Your task to perform on an android device: delete browsing data in the chrome app Image 0: 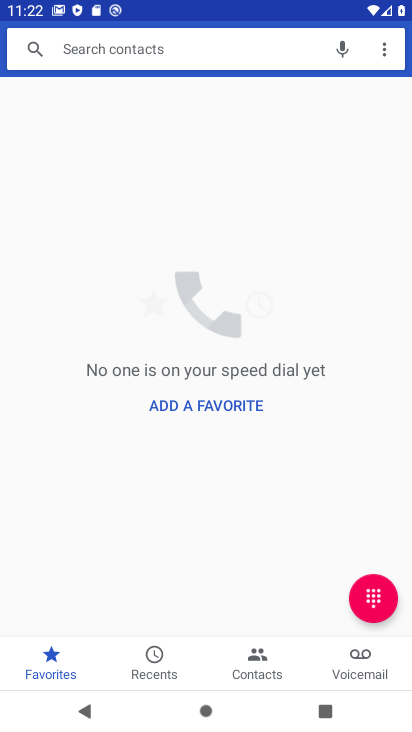
Step 0: press home button
Your task to perform on an android device: delete browsing data in the chrome app Image 1: 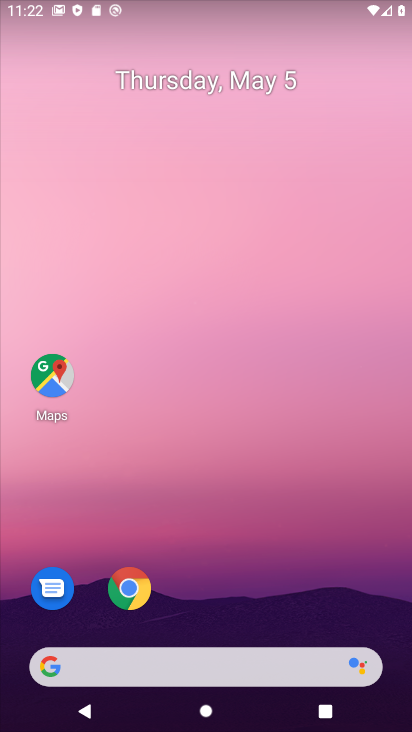
Step 1: drag from (163, 673) to (295, 83)
Your task to perform on an android device: delete browsing data in the chrome app Image 2: 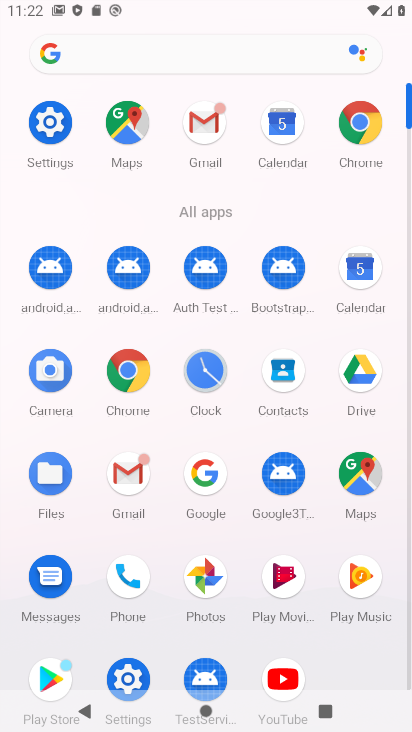
Step 2: click (354, 133)
Your task to perform on an android device: delete browsing data in the chrome app Image 3: 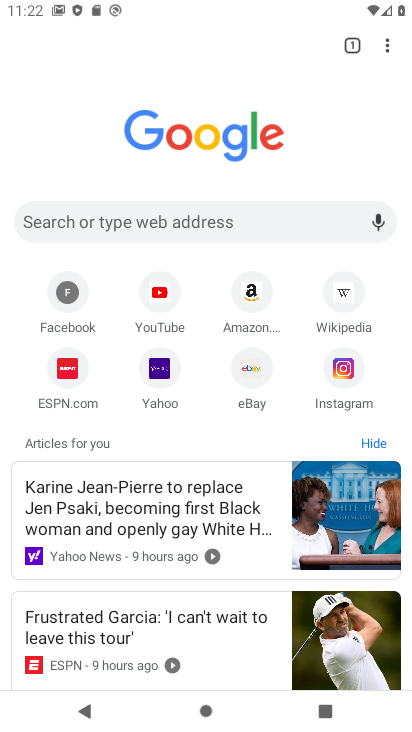
Step 3: drag from (386, 46) to (251, 382)
Your task to perform on an android device: delete browsing data in the chrome app Image 4: 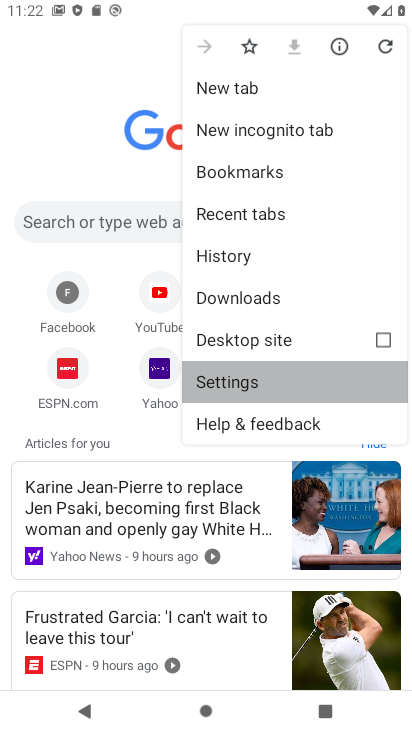
Step 4: click (251, 382)
Your task to perform on an android device: delete browsing data in the chrome app Image 5: 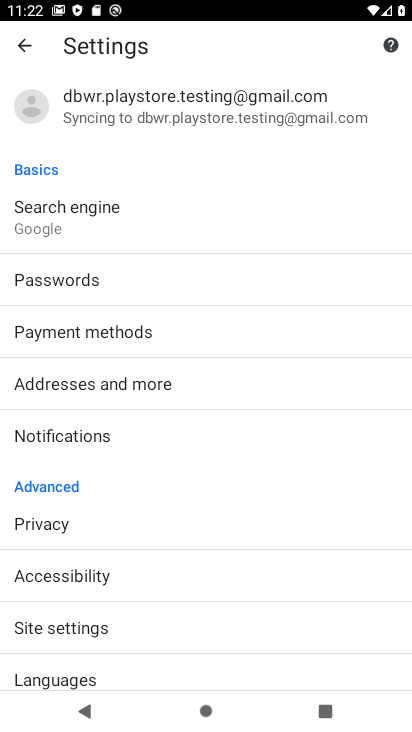
Step 5: click (28, 527)
Your task to perform on an android device: delete browsing data in the chrome app Image 6: 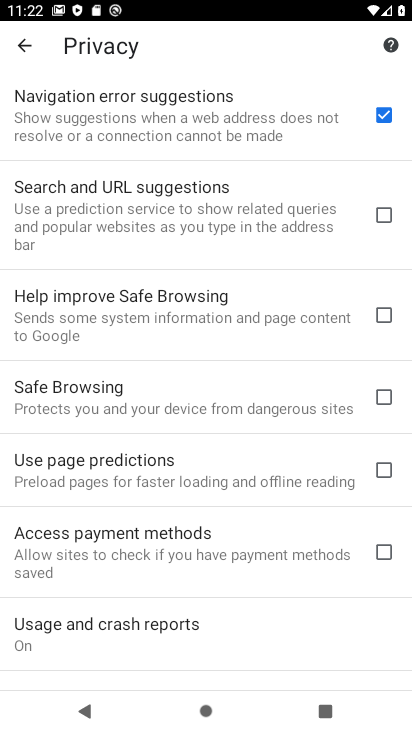
Step 6: drag from (155, 648) to (375, 119)
Your task to perform on an android device: delete browsing data in the chrome app Image 7: 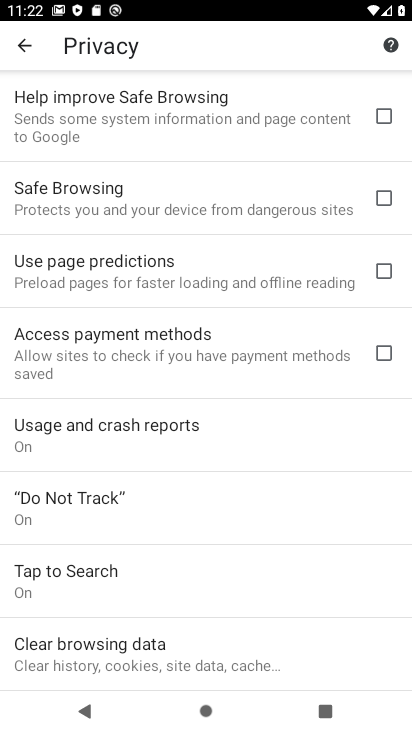
Step 7: click (132, 653)
Your task to perform on an android device: delete browsing data in the chrome app Image 8: 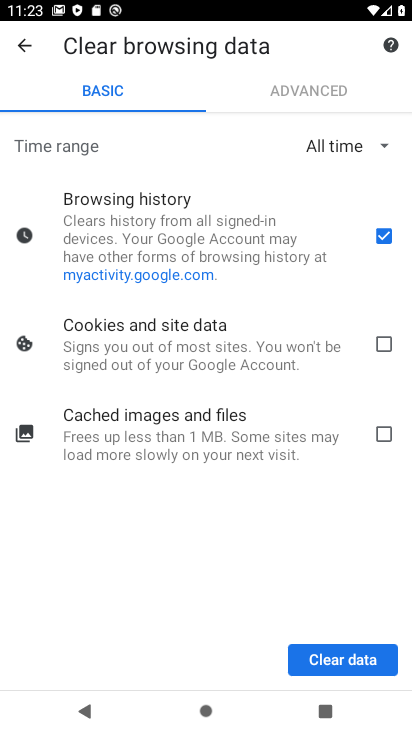
Step 8: click (376, 349)
Your task to perform on an android device: delete browsing data in the chrome app Image 9: 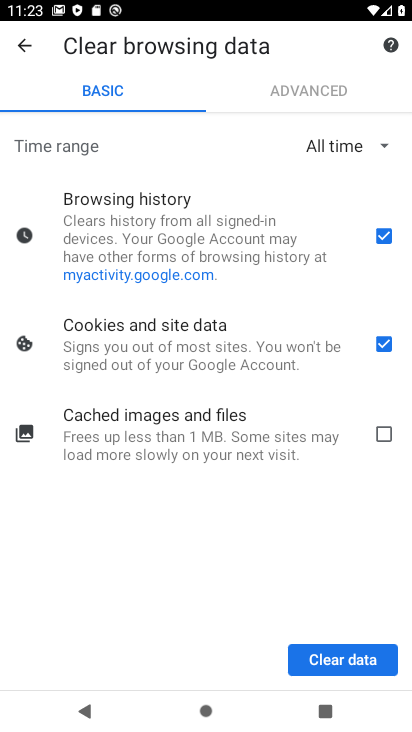
Step 9: click (386, 341)
Your task to perform on an android device: delete browsing data in the chrome app Image 10: 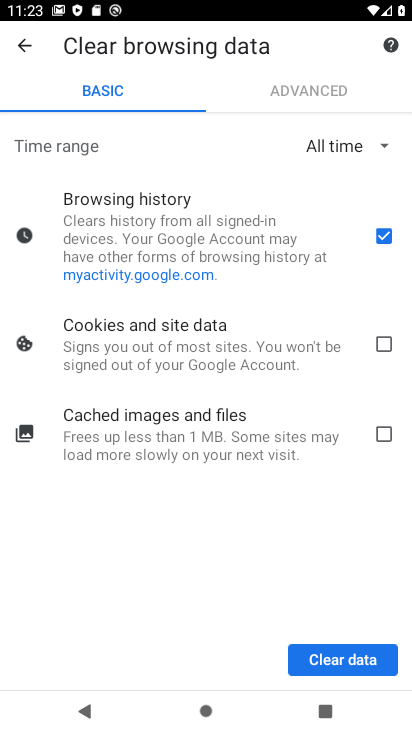
Step 10: click (325, 663)
Your task to perform on an android device: delete browsing data in the chrome app Image 11: 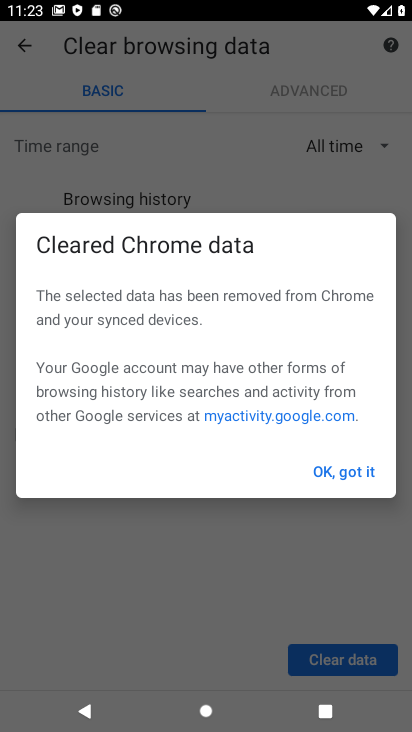
Step 11: click (328, 464)
Your task to perform on an android device: delete browsing data in the chrome app Image 12: 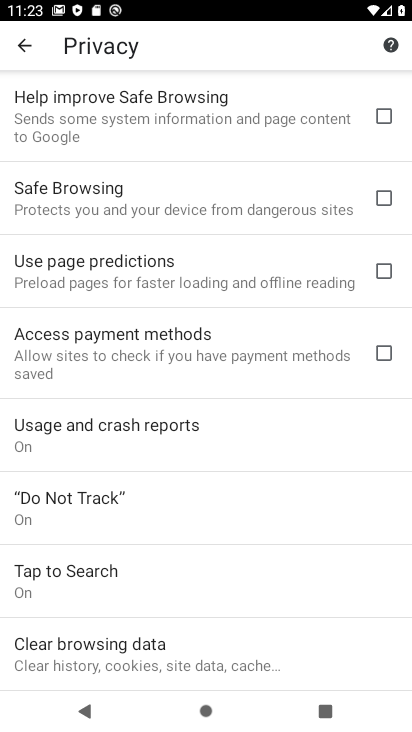
Step 12: task complete